Your task to perform on an android device: change timer sound Image 0: 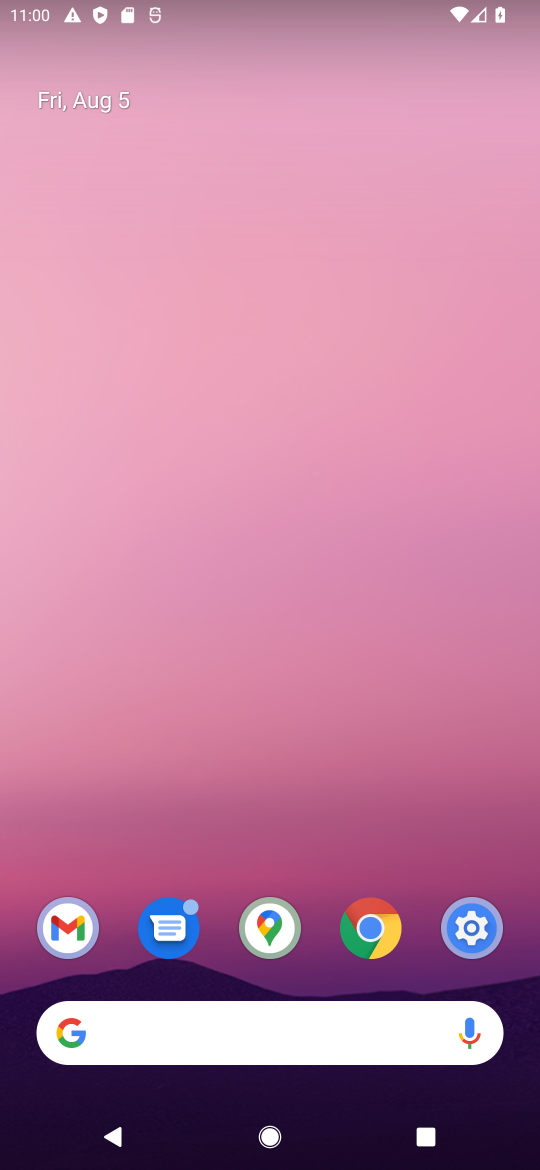
Step 0: drag from (321, 978) to (341, 194)
Your task to perform on an android device: change timer sound Image 1: 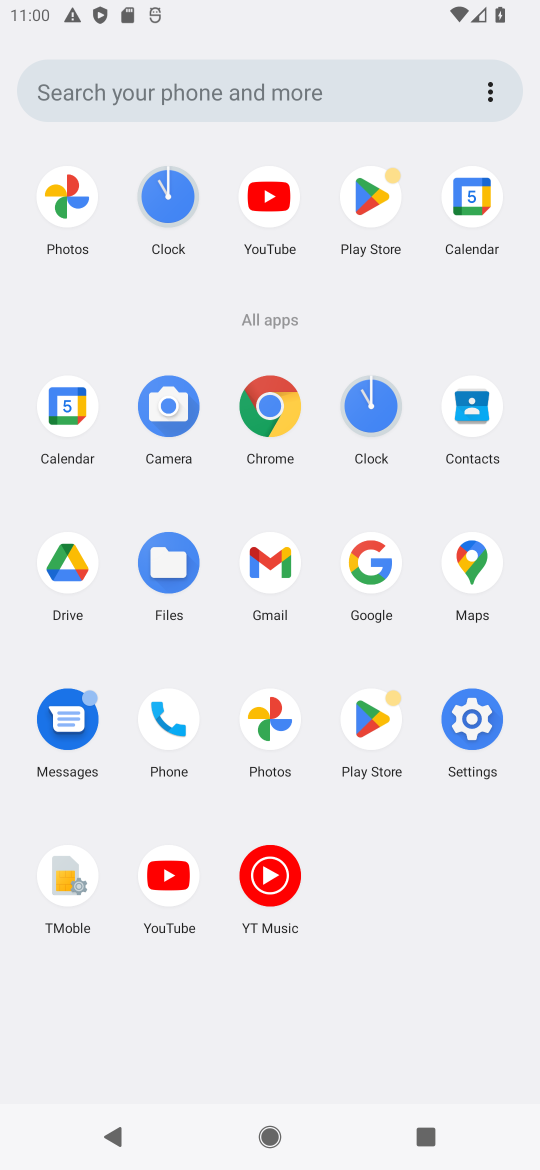
Step 1: click (366, 401)
Your task to perform on an android device: change timer sound Image 2: 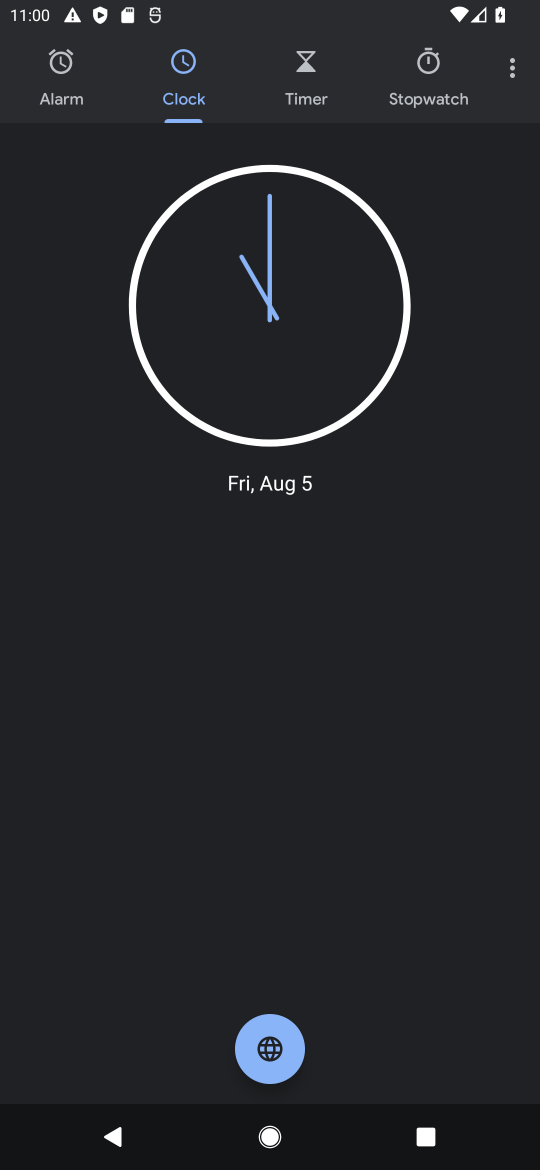
Step 2: click (514, 55)
Your task to perform on an android device: change timer sound Image 3: 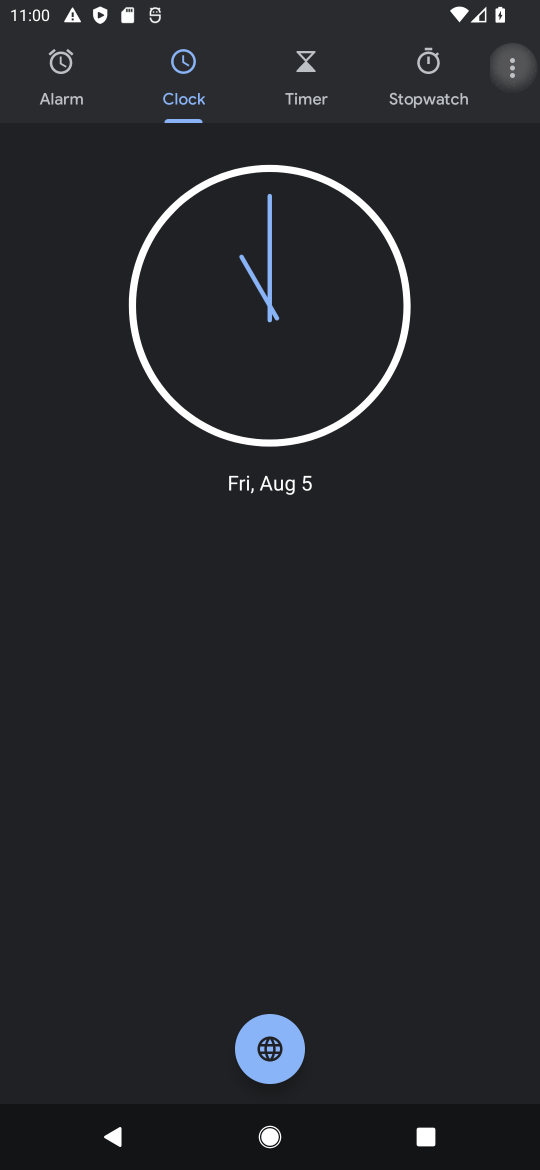
Step 3: click (514, 55)
Your task to perform on an android device: change timer sound Image 4: 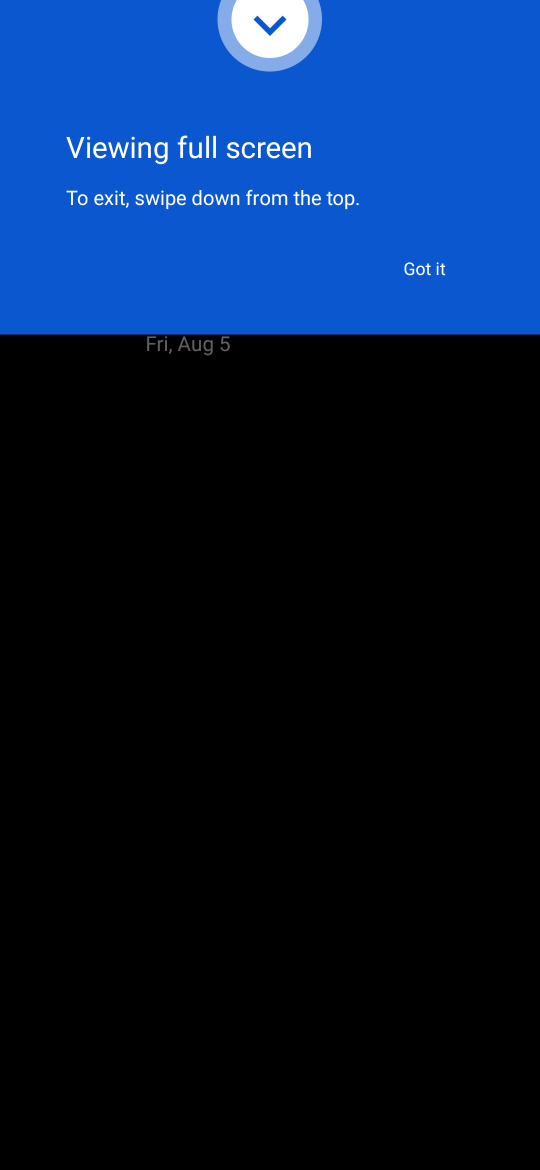
Step 4: click (439, 273)
Your task to perform on an android device: change timer sound Image 5: 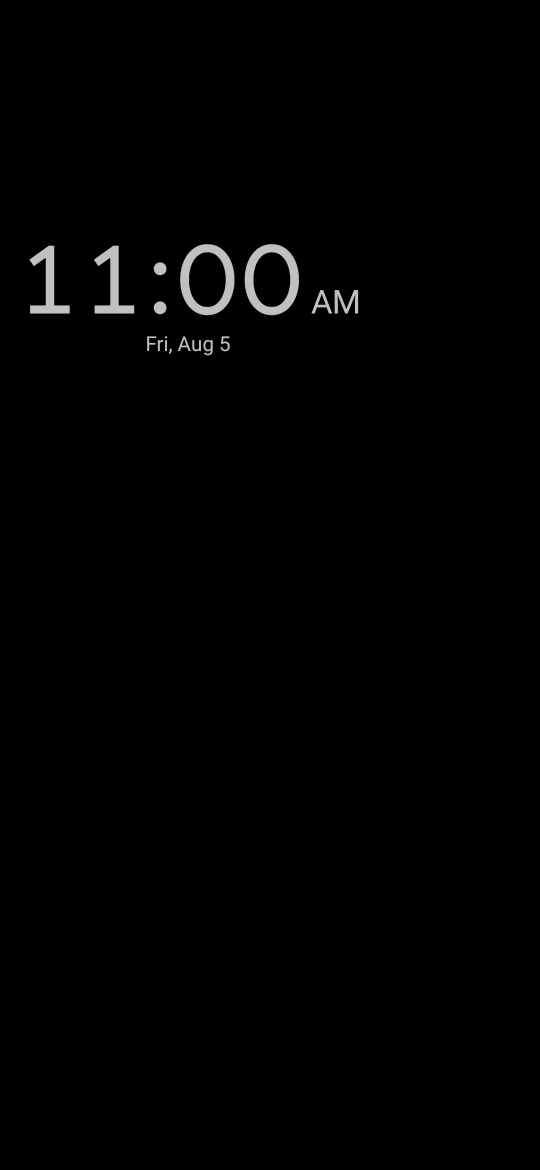
Step 5: click (265, 326)
Your task to perform on an android device: change timer sound Image 6: 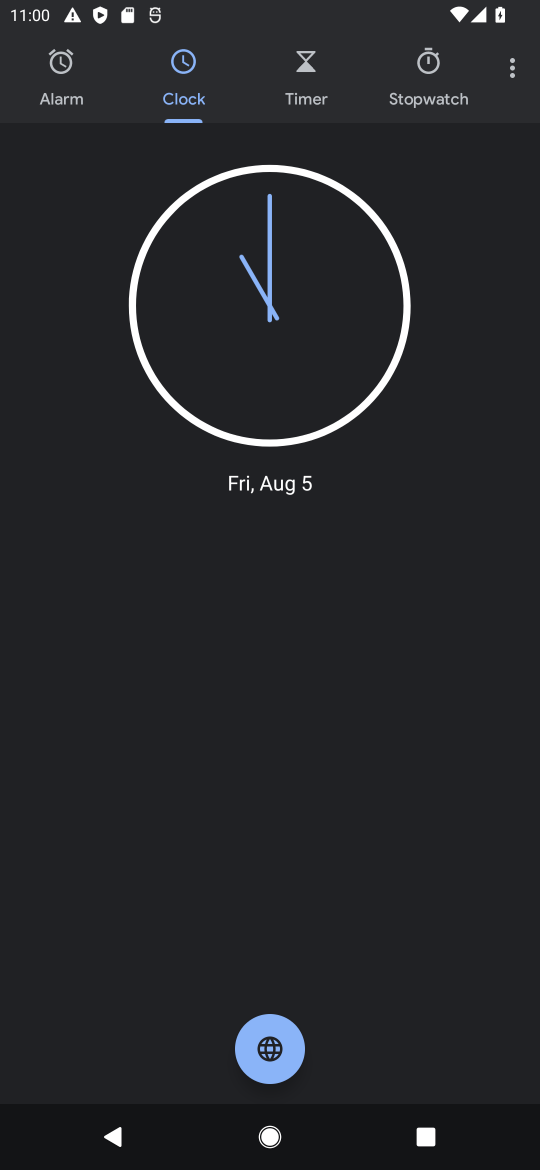
Step 6: click (490, 59)
Your task to perform on an android device: change timer sound Image 7: 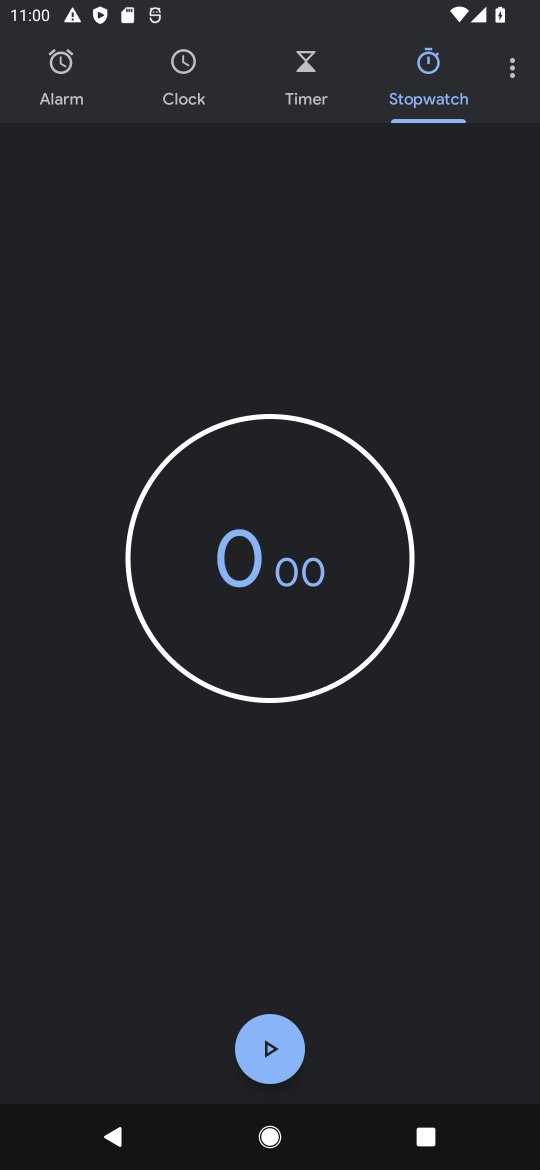
Step 7: click (515, 76)
Your task to perform on an android device: change timer sound Image 8: 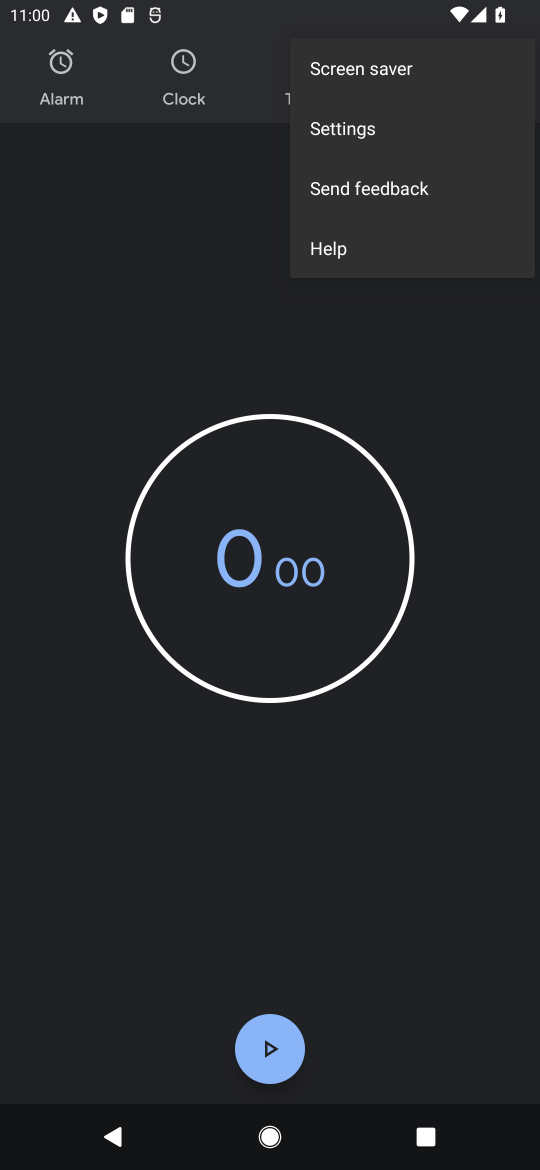
Step 8: click (372, 125)
Your task to perform on an android device: change timer sound Image 9: 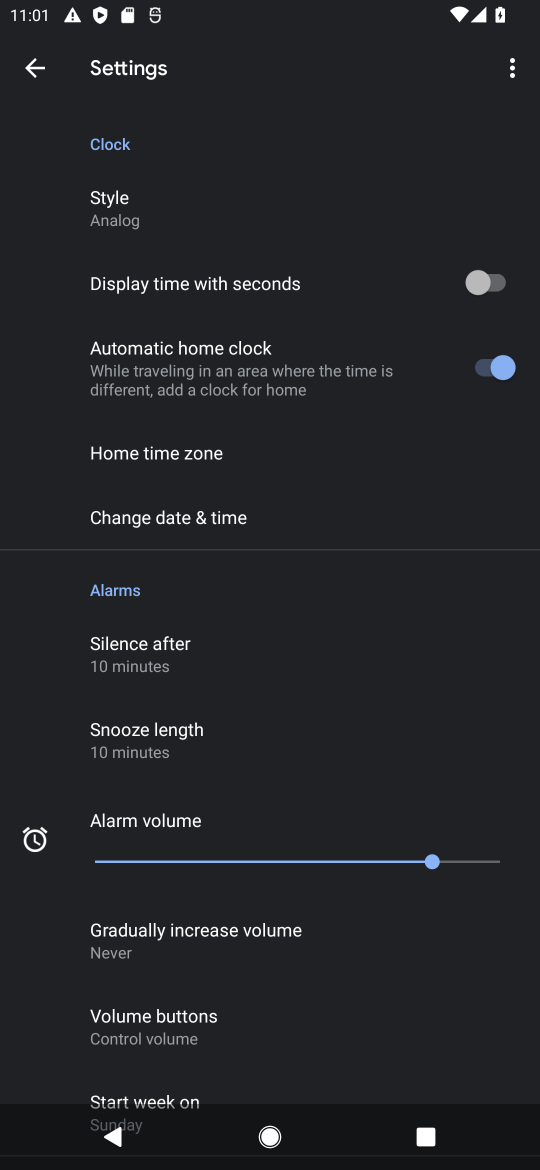
Step 9: drag from (114, 742) to (135, 300)
Your task to perform on an android device: change timer sound Image 10: 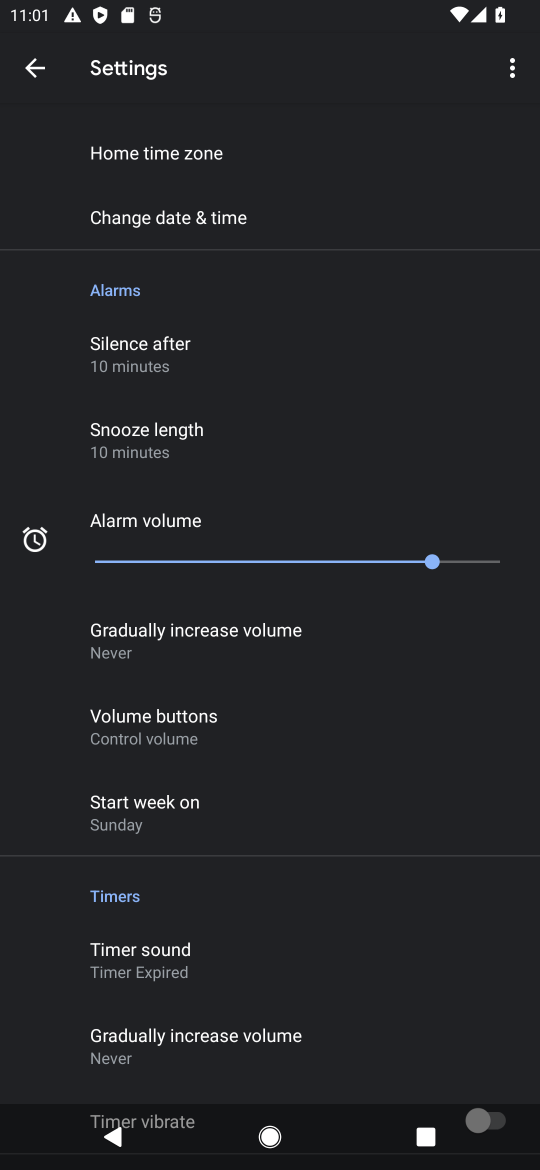
Step 10: click (152, 969)
Your task to perform on an android device: change timer sound Image 11: 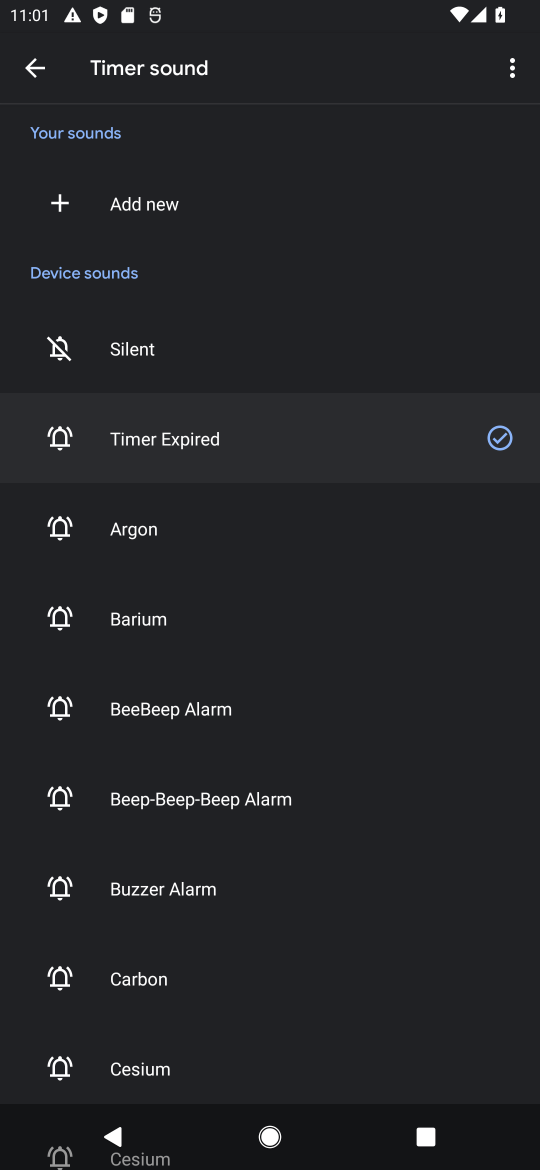
Step 11: click (145, 530)
Your task to perform on an android device: change timer sound Image 12: 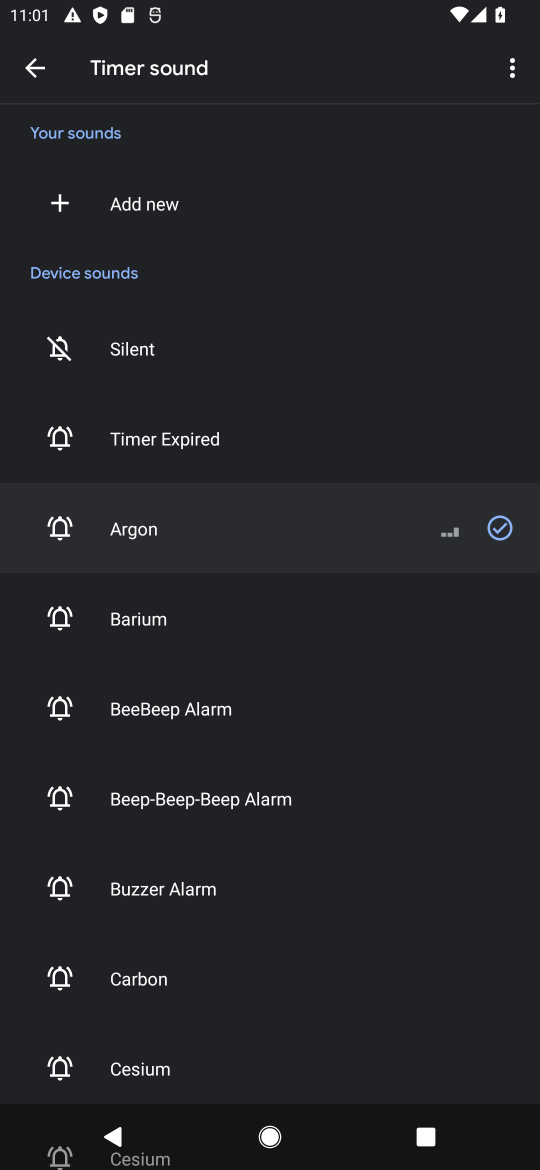
Step 12: task complete